Your task to perform on an android device: Open CNN.com Image 0: 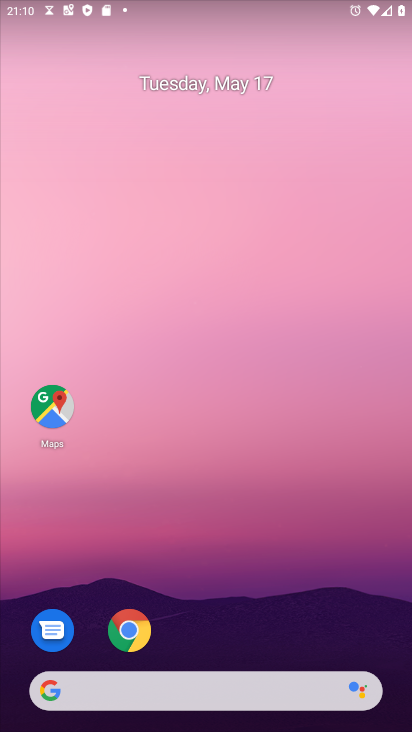
Step 0: click (137, 638)
Your task to perform on an android device: Open CNN.com Image 1: 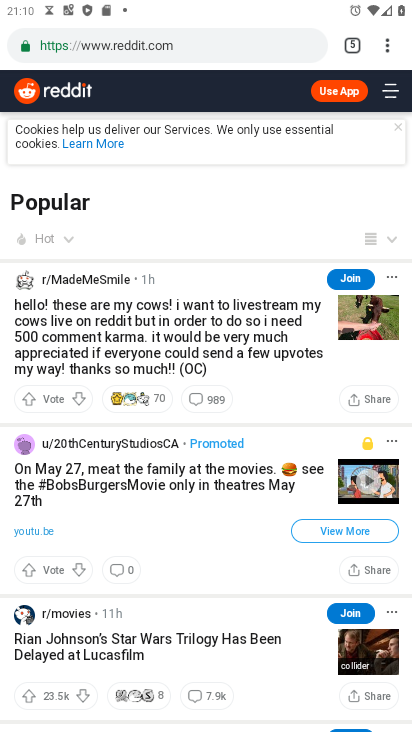
Step 1: click (354, 48)
Your task to perform on an android device: Open CNN.com Image 2: 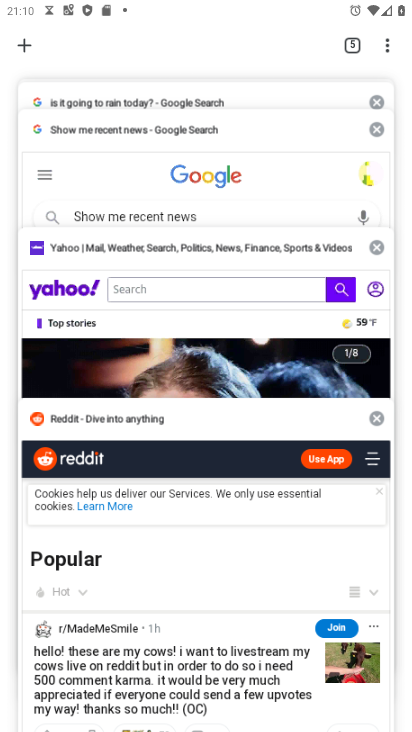
Step 2: click (23, 45)
Your task to perform on an android device: Open CNN.com Image 3: 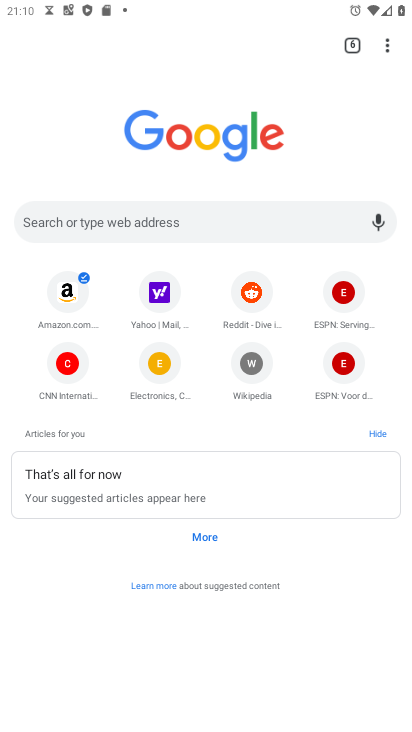
Step 3: click (72, 363)
Your task to perform on an android device: Open CNN.com Image 4: 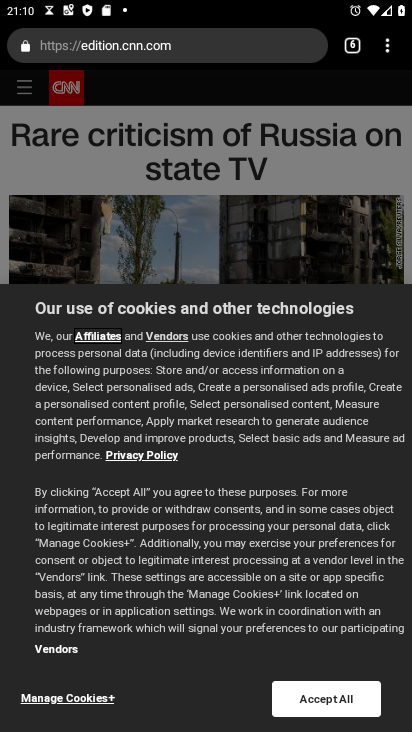
Step 4: click (326, 709)
Your task to perform on an android device: Open CNN.com Image 5: 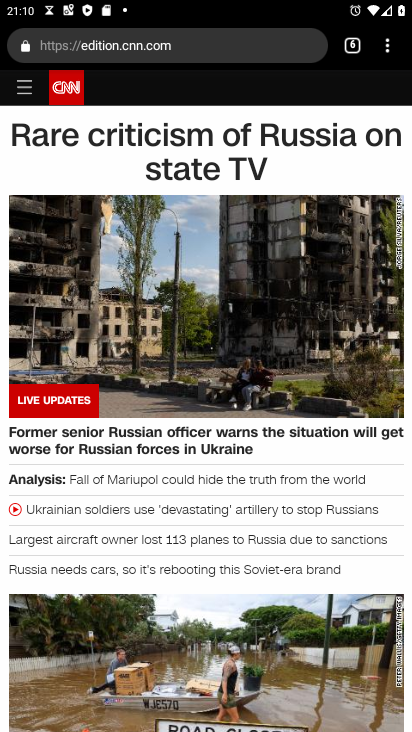
Step 5: task complete